Your task to perform on an android device: Is it going to rain this weekend? Image 0: 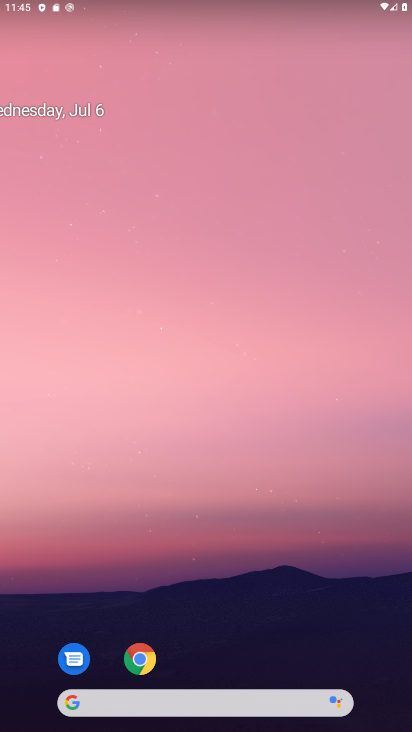
Step 0: drag from (7, 143) to (388, 321)
Your task to perform on an android device: Is it going to rain this weekend? Image 1: 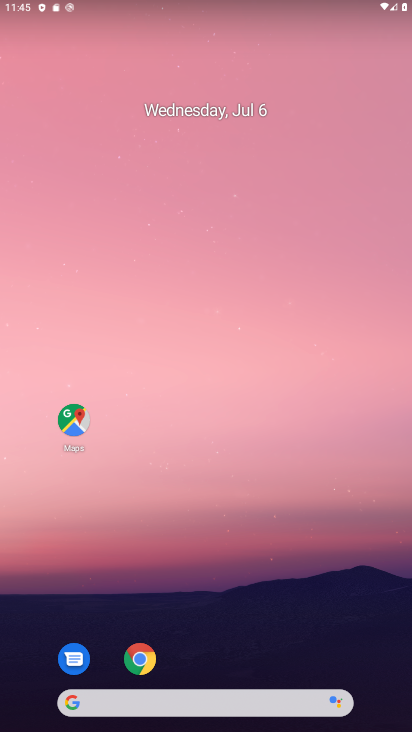
Step 1: task complete